Your task to perform on an android device: toggle airplane mode Image 0: 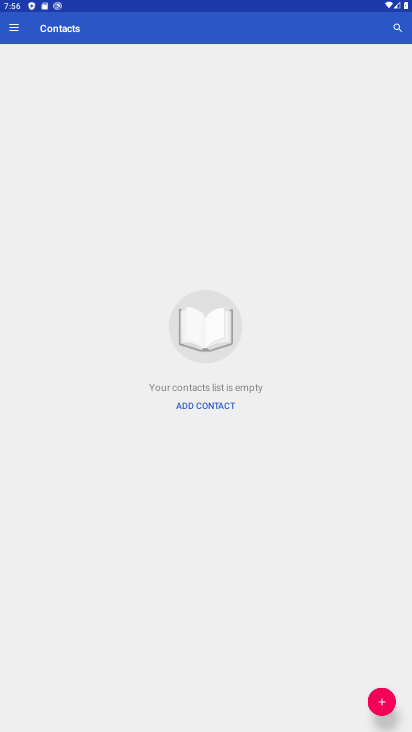
Step 0: press home button
Your task to perform on an android device: toggle airplane mode Image 1: 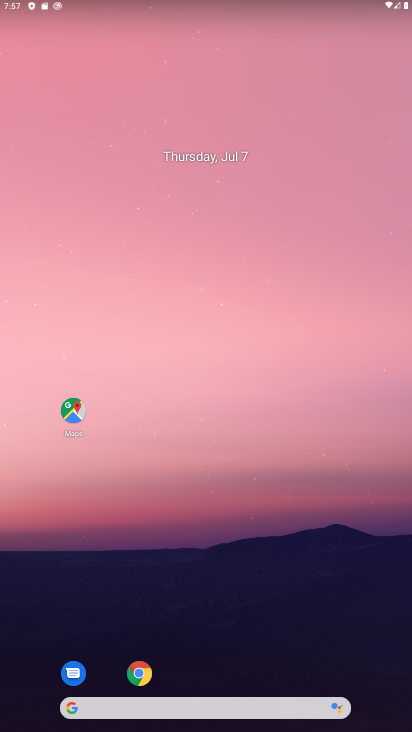
Step 1: drag from (170, 683) to (382, 406)
Your task to perform on an android device: toggle airplane mode Image 2: 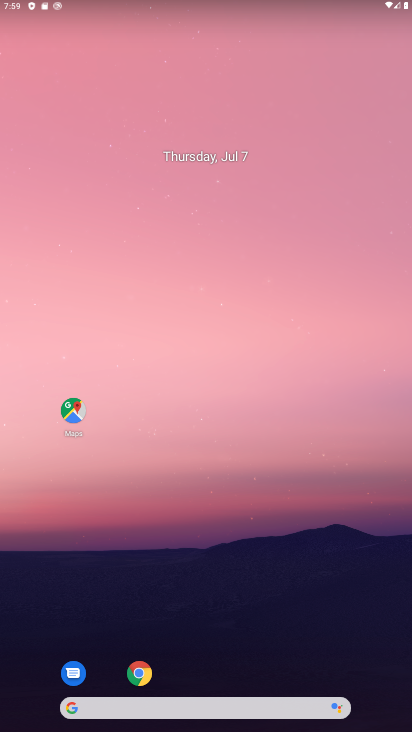
Step 2: drag from (214, 676) to (197, 15)
Your task to perform on an android device: toggle airplane mode Image 3: 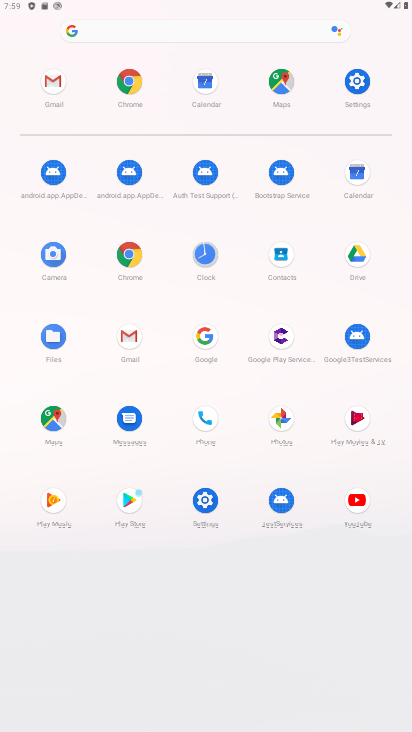
Step 3: click (214, 494)
Your task to perform on an android device: toggle airplane mode Image 4: 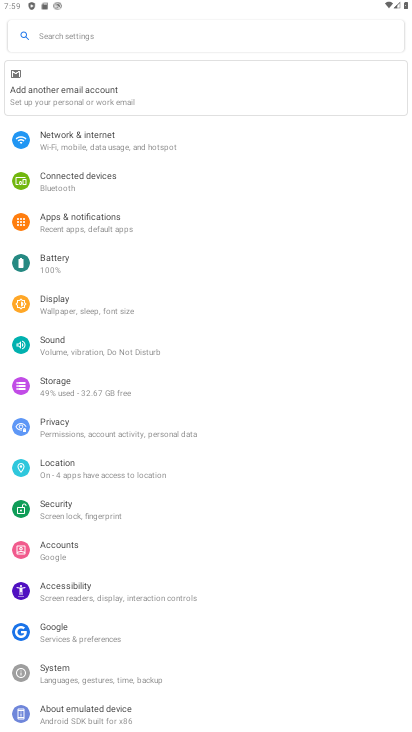
Step 4: click (63, 137)
Your task to perform on an android device: toggle airplane mode Image 5: 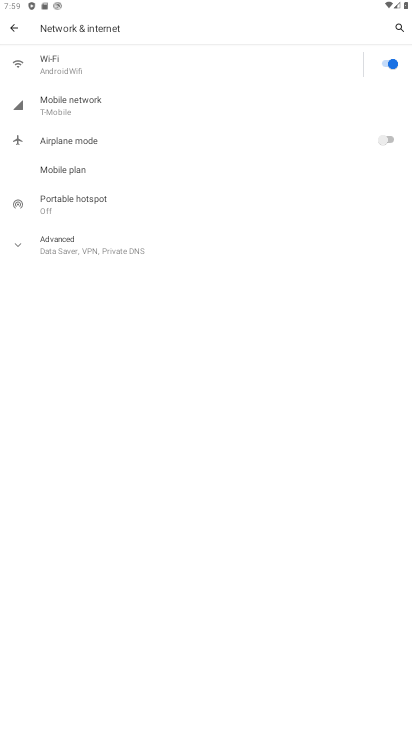
Step 5: click (382, 144)
Your task to perform on an android device: toggle airplane mode Image 6: 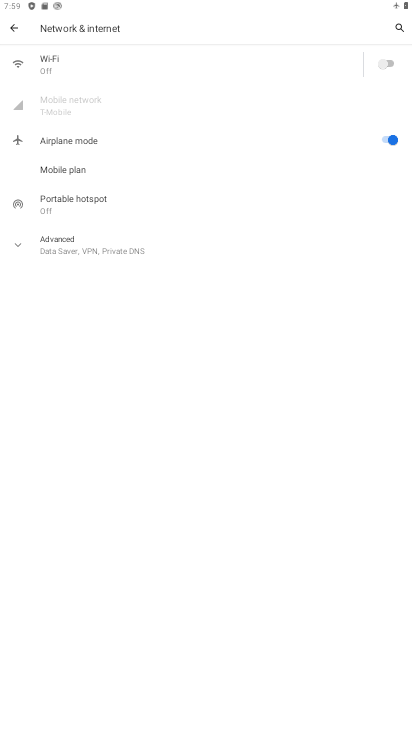
Step 6: task complete